Your task to perform on an android device: toggle pop-ups in chrome Image 0: 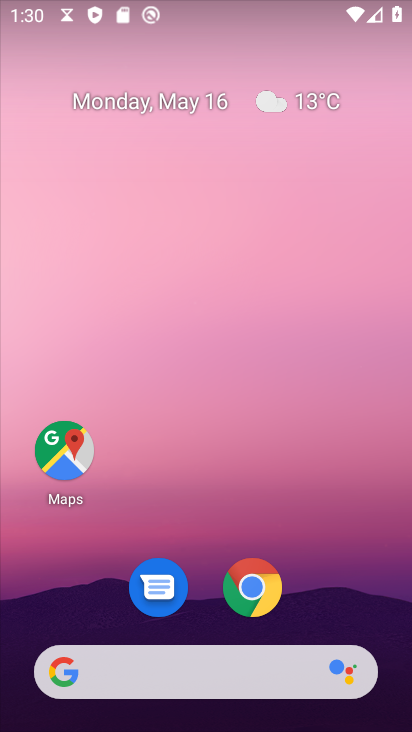
Step 0: click (242, 587)
Your task to perform on an android device: toggle pop-ups in chrome Image 1: 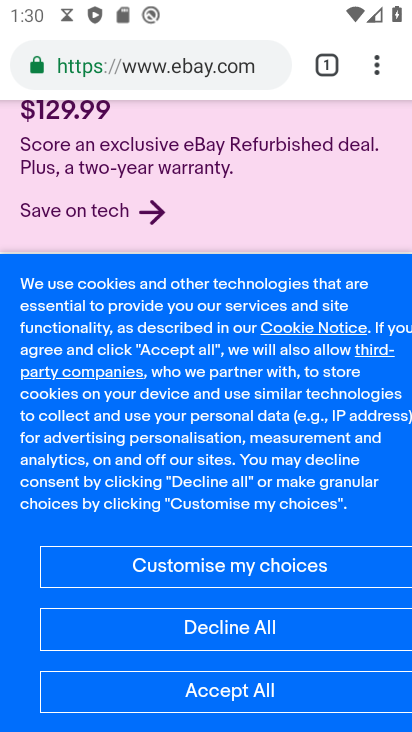
Step 1: click (380, 72)
Your task to perform on an android device: toggle pop-ups in chrome Image 2: 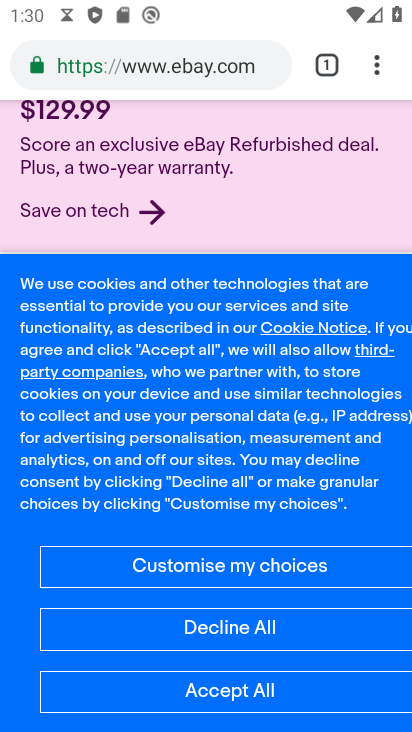
Step 2: click (377, 65)
Your task to perform on an android device: toggle pop-ups in chrome Image 3: 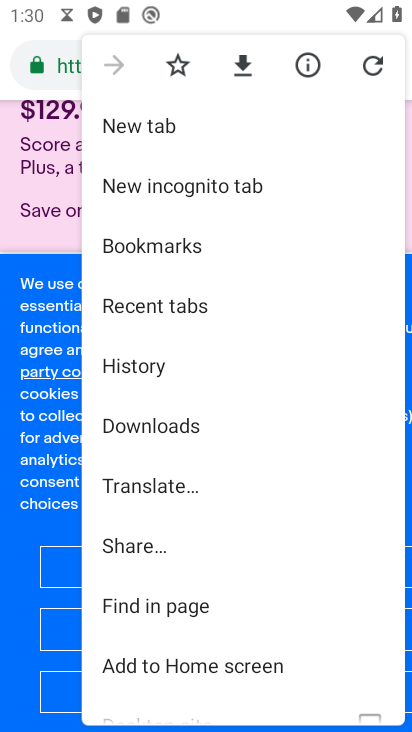
Step 3: drag from (198, 583) to (189, 269)
Your task to perform on an android device: toggle pop-ups in chrome Image 4: 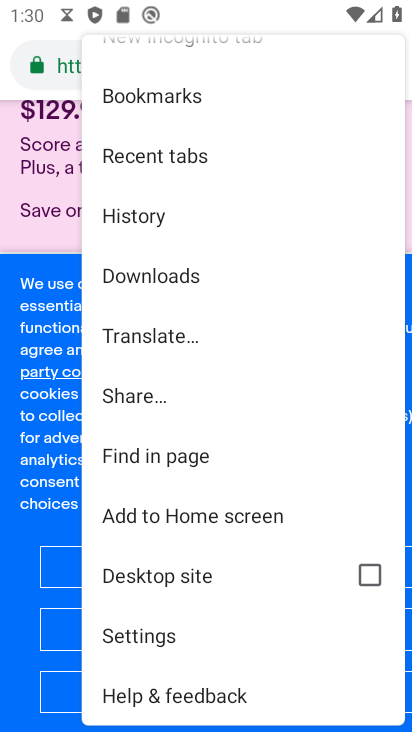
Step 4: click (141, 627)
Your task to perform on an android device: toggle pop-ups in chrome Image 5: 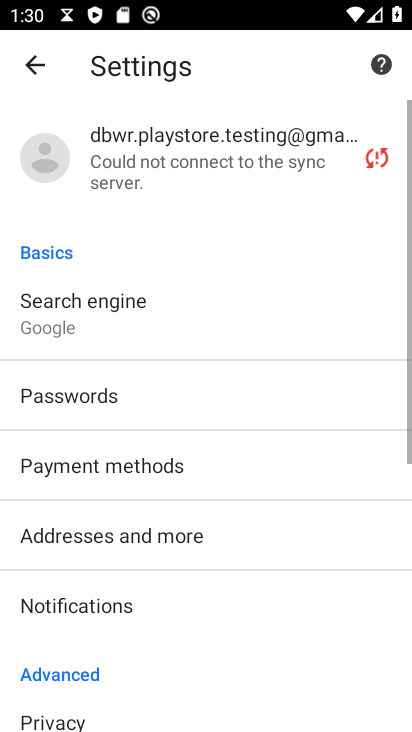
Step 5: drag from (186, 688) to (179, 370)
Your task to perform on an android device: toggle pop-ups in chrome Image 6: 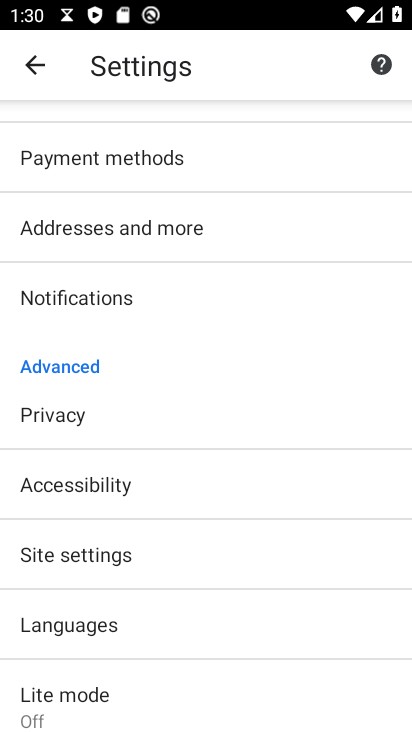
Step 6: drag from (141, 618) to (140, 393)
Your task to perform on an android device: toggle pop-ups in chrome Image 7: 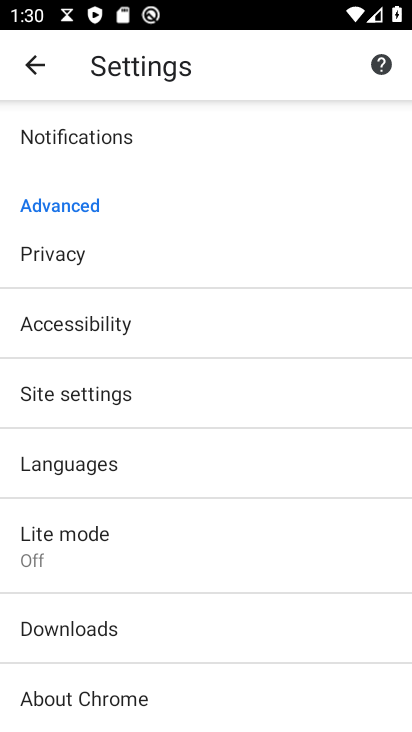
Step 7: click (100, 390)
Your task to perform on an android device: toggle pop-ups in chrome Image 8: 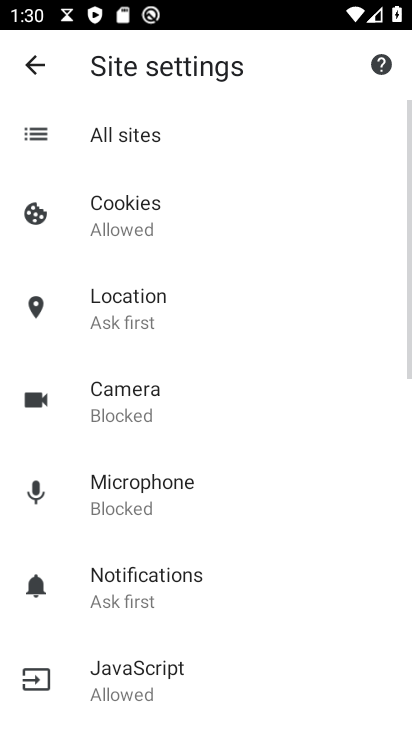
Step 8: drag from (146, 696) to (143, 247)
Your task to perform on an android device: toggle pop-ups in chrome Image 9: 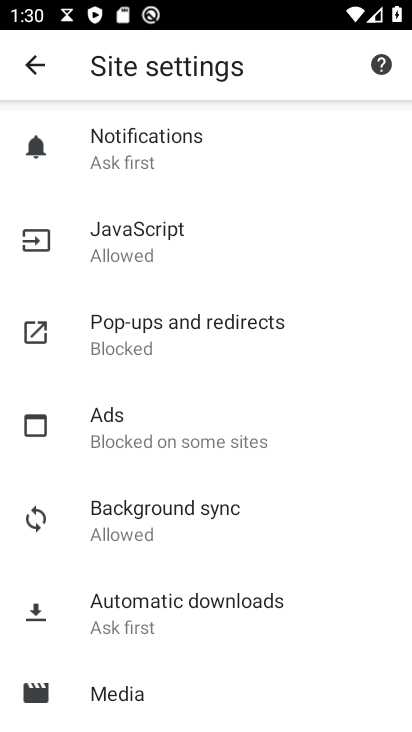
Step 9: click (157, 333)
Your task to perform on an android device: toggle pop-ups in chrome Image 10: 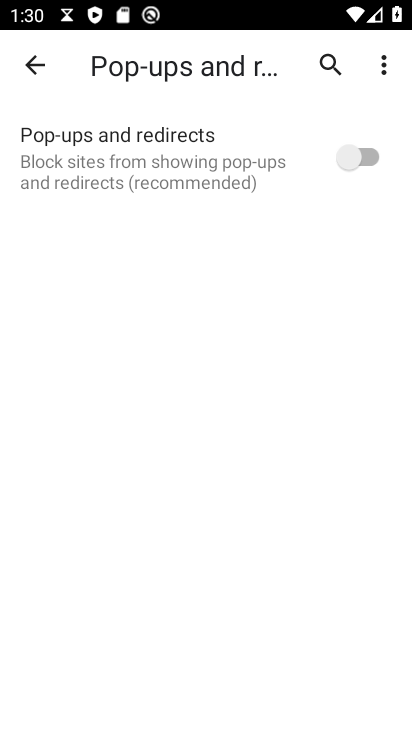
Step 10: click (366, 146)
Your task to perform on an android device: toggle pop-ups in chrome Image 11: 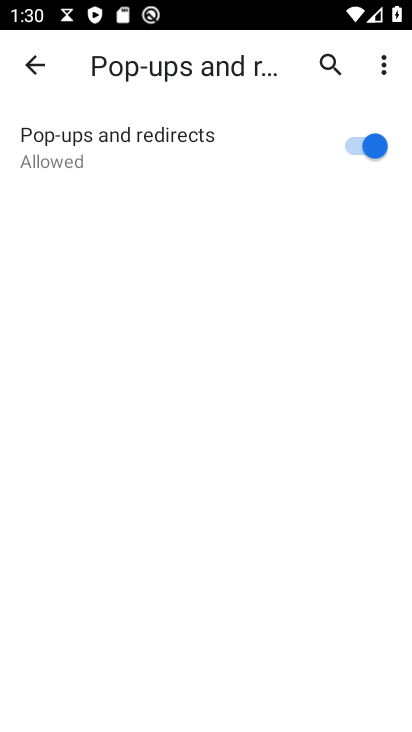
Step 11: task complete